Your task to perform on an android device: Open the phone app and click the voicemail tab. Image 0: 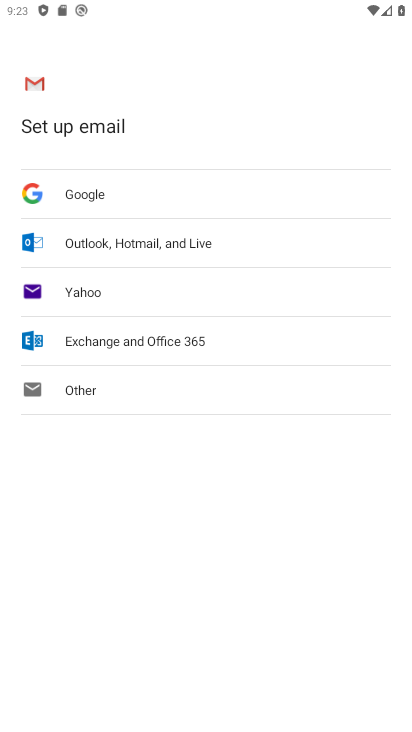
Step 0: press home button
Your task to perform on an android device: Open the phone app and click the voicemail tab. Image 1: 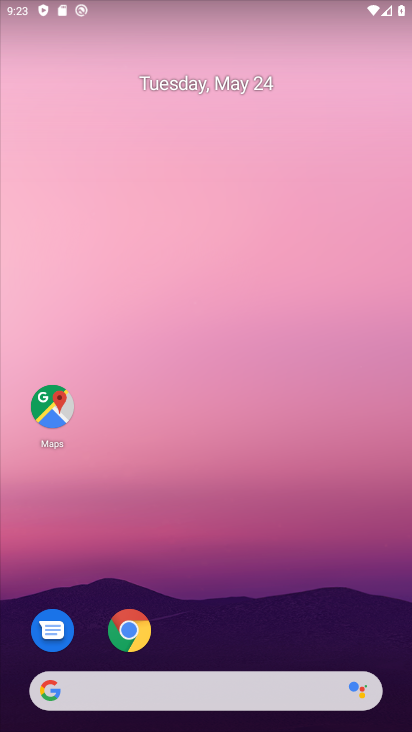
Step 1: drag from (236, 642) to (269, 112)
Your task to perform on an android device: Open the phone app and click the voicemail tab. Image 2: 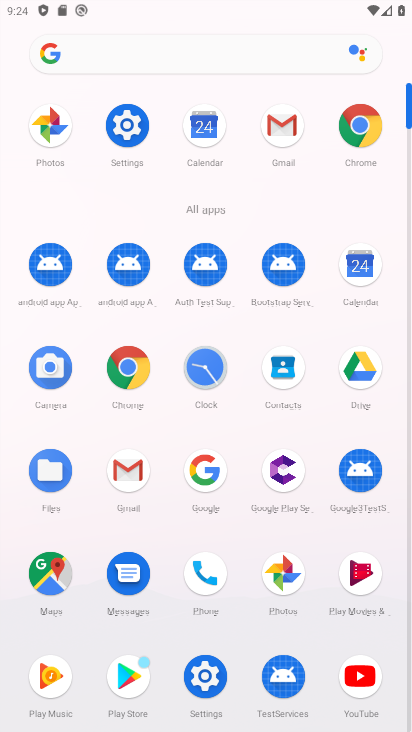
Step 2: click (198, 564)
Your task to perform on an android device: Open the phone app and click the voicemail tab. Image 3: 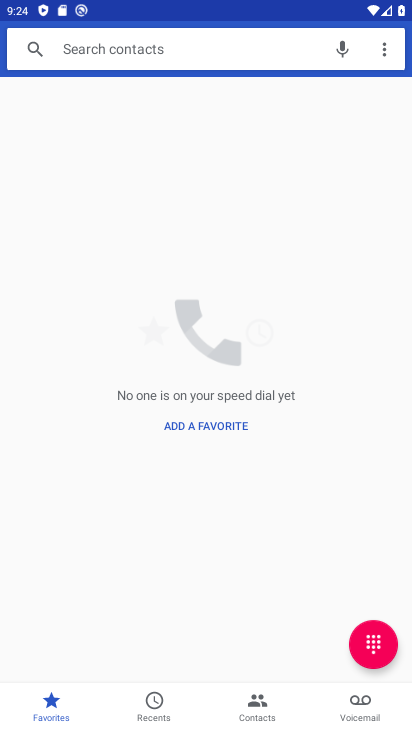
Step 3: click (356, 699)
Your task to perform on an android device: Open the phone app and click the voicemail tab. Image 4: 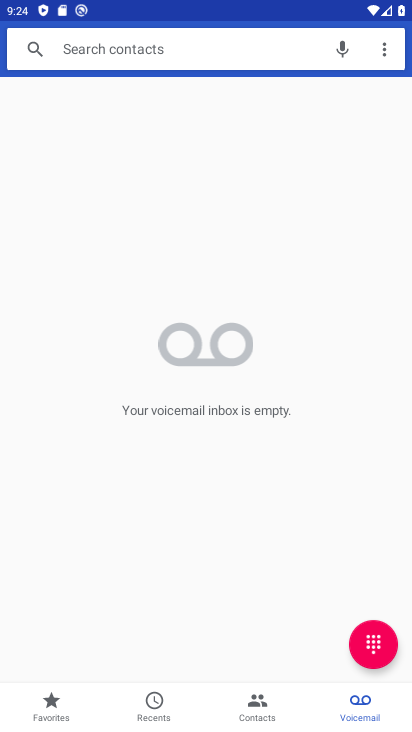
Step 4: task complete